Your task to perform on an android device: open chrome and create a bookmark for the current page Image 0: 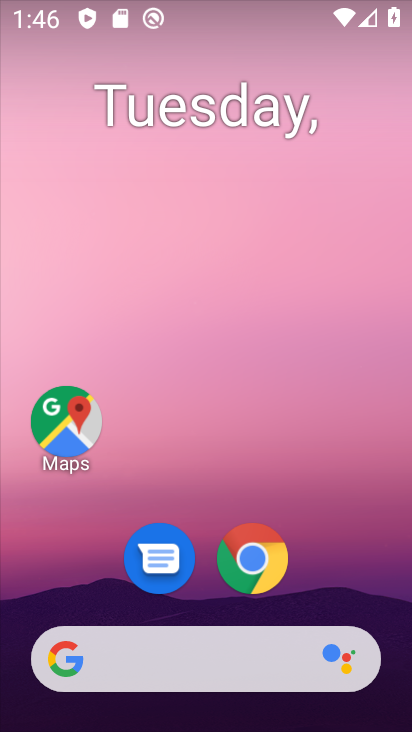
Step 0: click (277, 557)
Your task to perform on an android device: open chrome and create a bookmark for the current page Image 1: 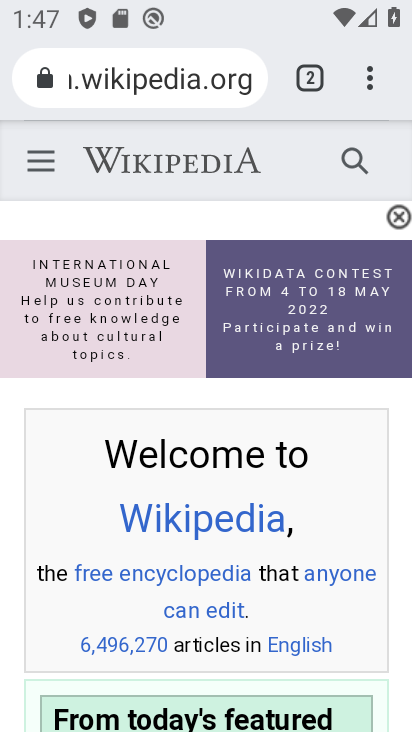
Step 1: click (362, 76)
Your task to perform on an android device: open chrome and create a bookmark for the current page Image 2: 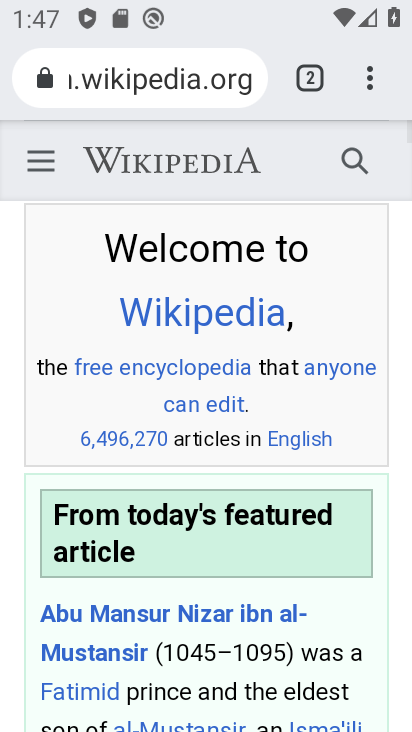
Step 2: task complete